Your task to perform on an android device: Go to battery settings Image 0: 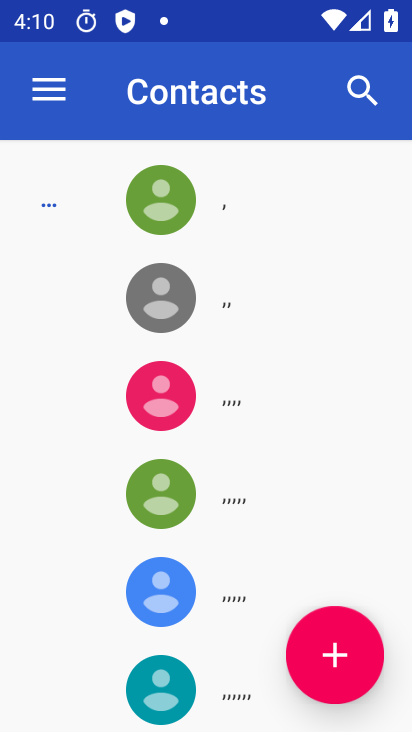
Step 0: press home button
Your task to perform on an android device: Go to battery settings Image 1: 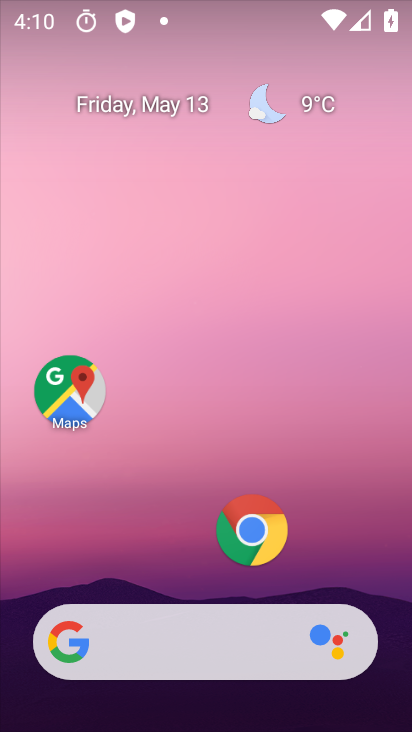
Step 1: drag from (198, 555) to (258, 24)
Your task to perform on an android device: Go to battery settings Image 2: 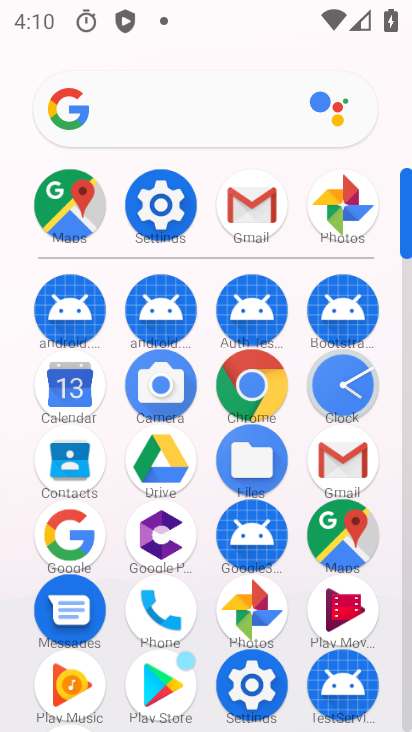
Step 2: click (158, 202)
Your task to perform on an android device: Go to battery settings Image 3: 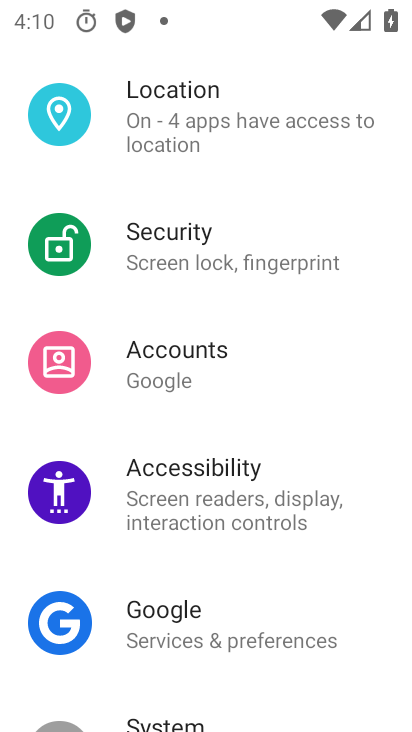
Step 3: drag from (106, 97) to (130, 648)
Your task to perform on an android device: Go to battery settings Image 4: 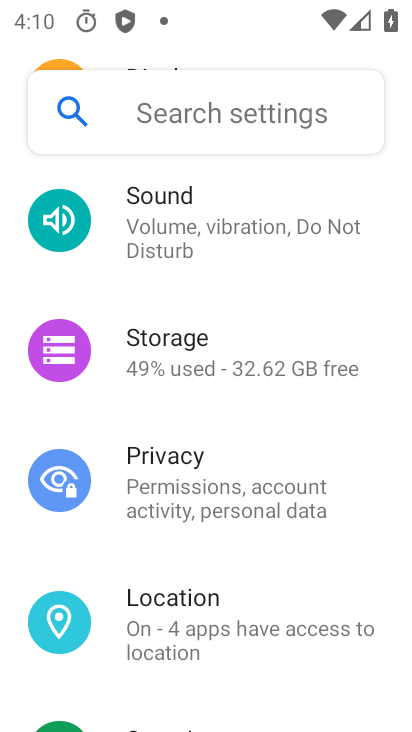
Step 4: drag from (110, 204) to (115, 667)
Your task to perform on an android device: Go to battery settings Image 5: 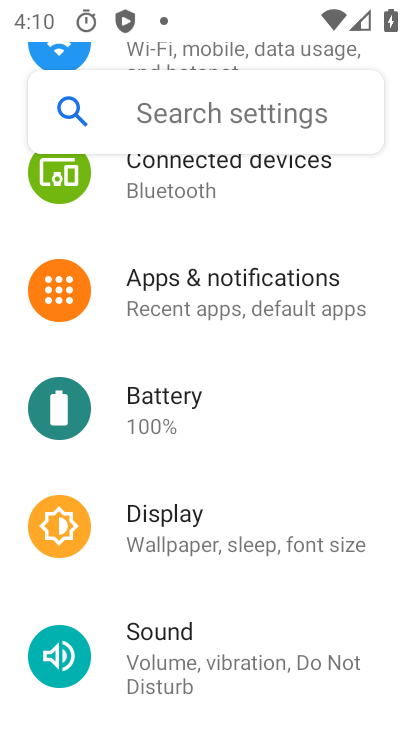
Step 5: click (200, 408)
Your task to perform on an android device: Go to battery settings Image 6: 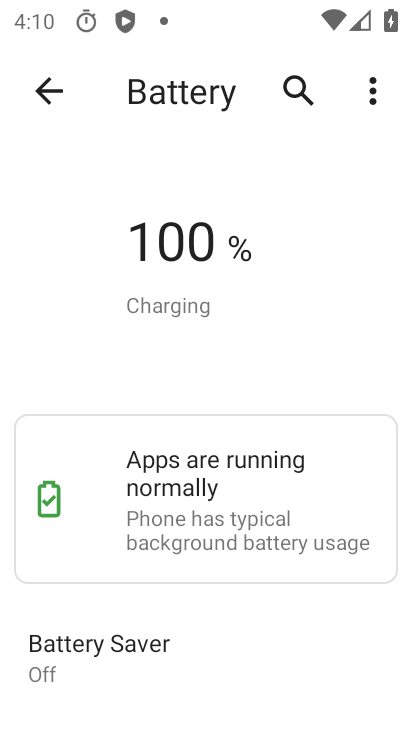
Step 6: task complete